Your task to perform on an android device: turn on data saver in the chrome app Image 0: 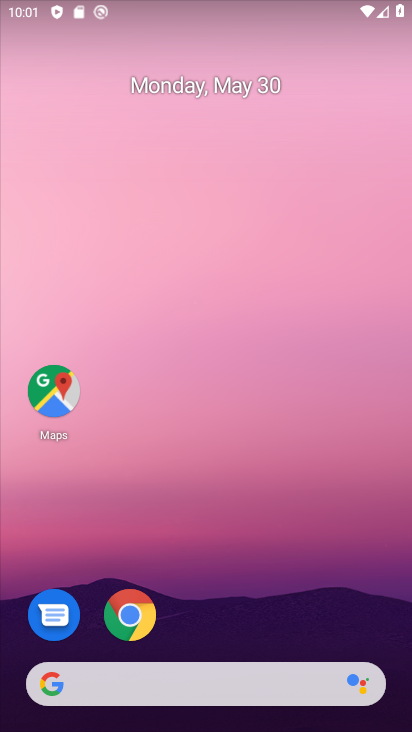
Step 0: click (135, 623)
Your task to perform on an android device: turn on data saver in the chrome app Image 1: 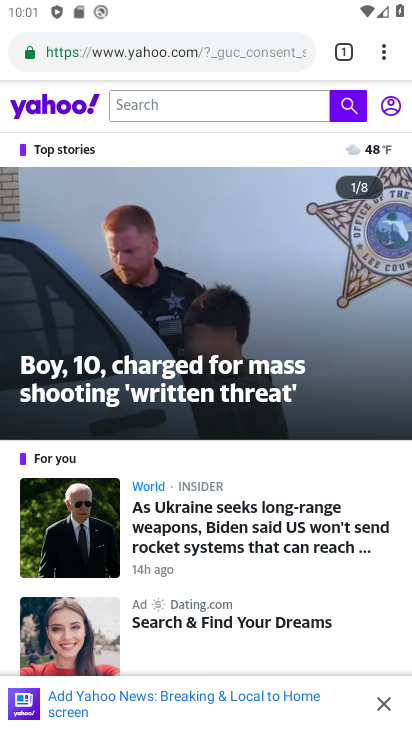
Step 1: click (383, 58)
Your task to perform on an android device: turn on data saver in the chrome app Image 2: 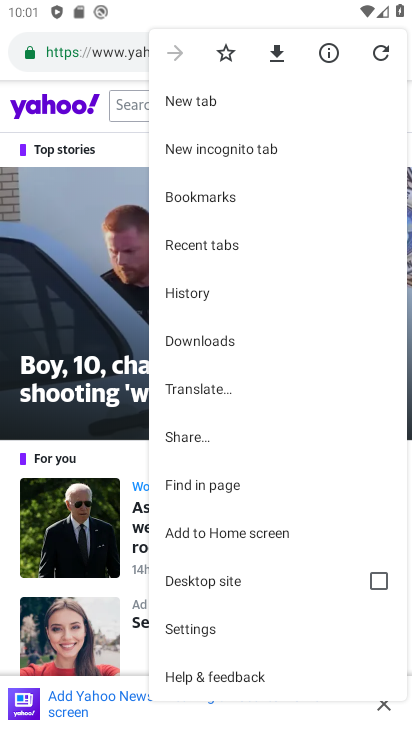
Step 2: click (192, 630)
Your task to perform on an android device: turn on data saver in the chrome app Image 3: 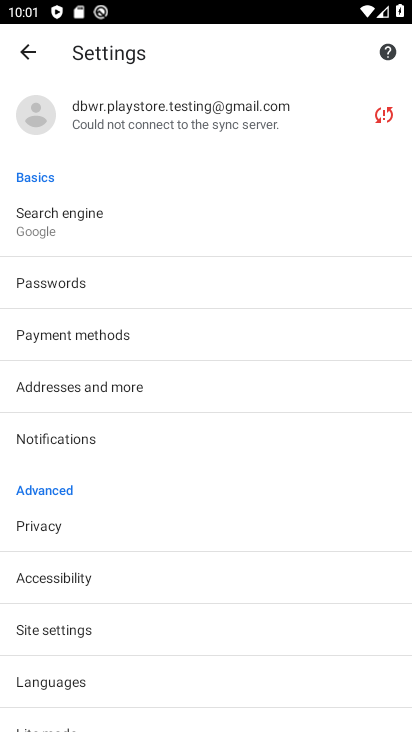
Step 3: drag from (99, 686) to (121, 316)
Your task to perform on an android device: turn on data saver in the chrome app Image 4: 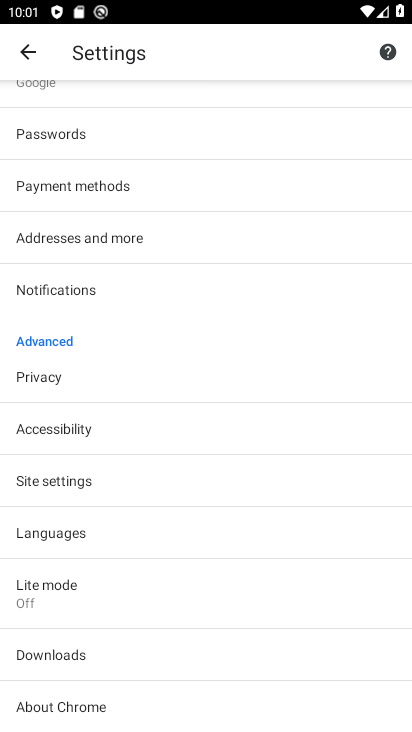
Step 4: click (67, 577)
Your task to perform on an android device: turn on data saver in the chrome app Image 5: 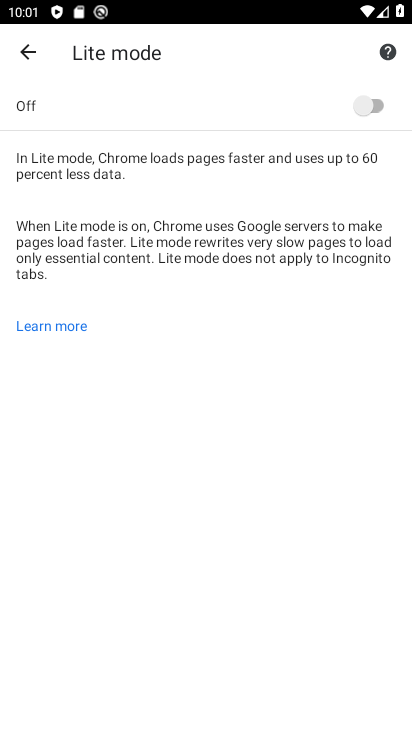
Step 5: click (379, 107)
Your task to perform on an android device: turn on data saver in the chrome app Image 6: 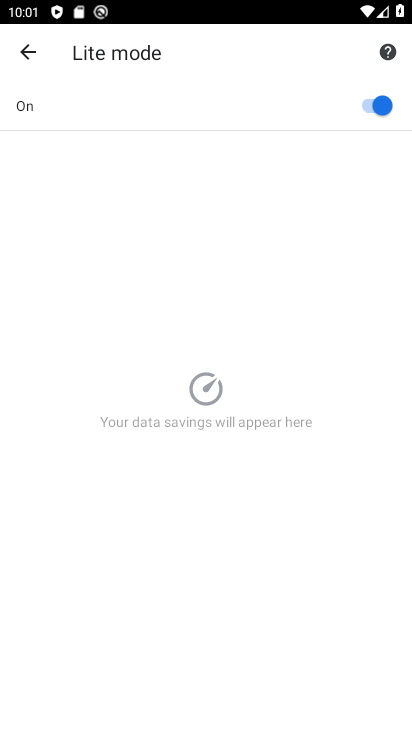
Step 6: task complete